Your task to perform on an android device: turn smart compose on in the gmail app Image 0: 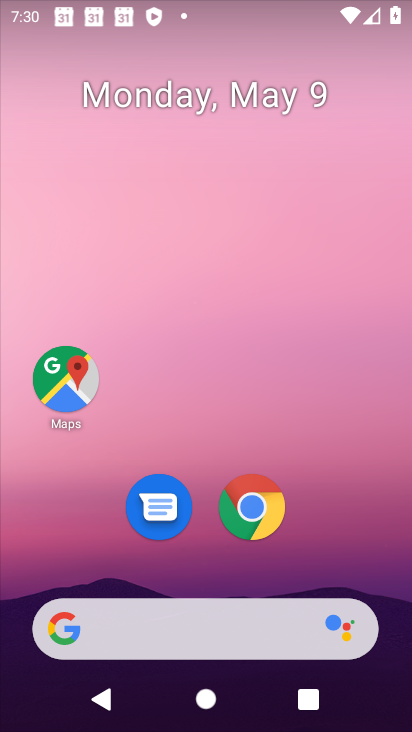
Step 0: drag from (294, 622) to (345, 154)
Your task to perform on an android device: turn smart compose on in the gmail app Image 1: 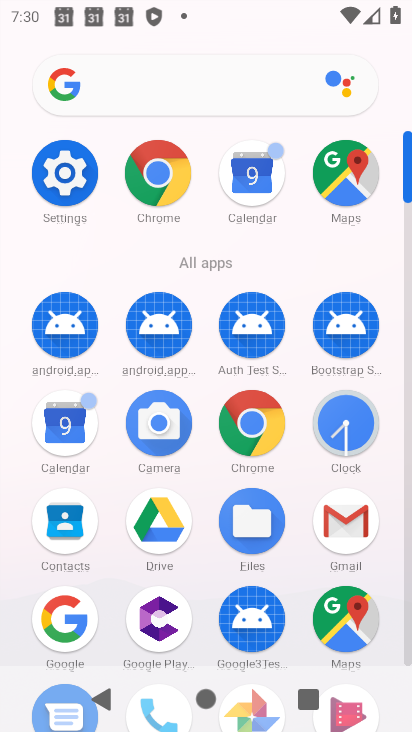
Step 1: click (350, 532)
Your task to perform on an android device: turn smart compose on in the gmail app Image 2: 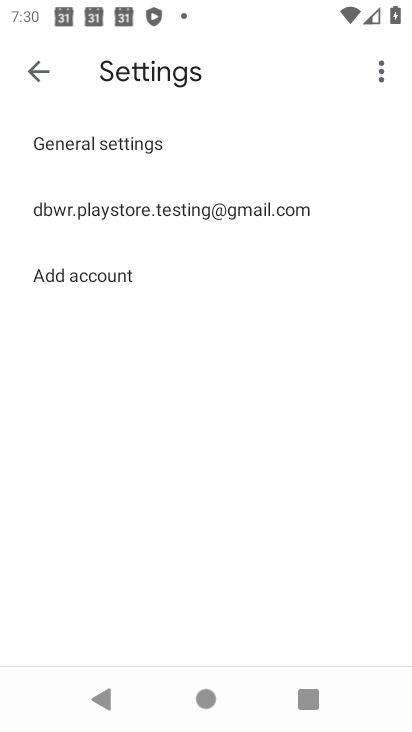
Step 2: click (167, 202)
Your task to perform on an android device: turn smart compose on in the gmail app Image 3: 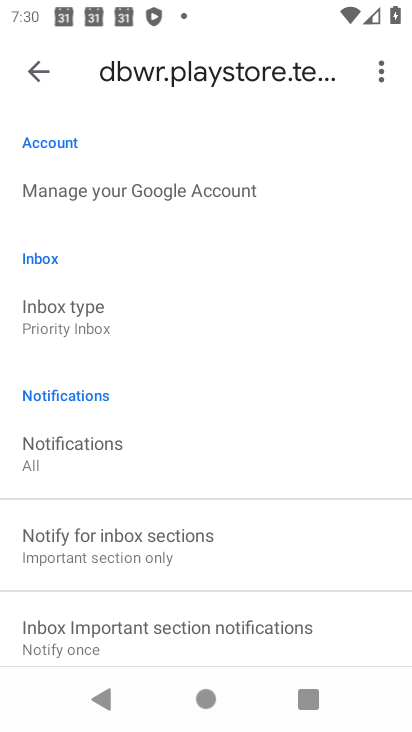
Step 3: drag from (217, 570) to (278, 136)
Your task to perform on an android device: turn smart compose on in the gmail app Image 4: 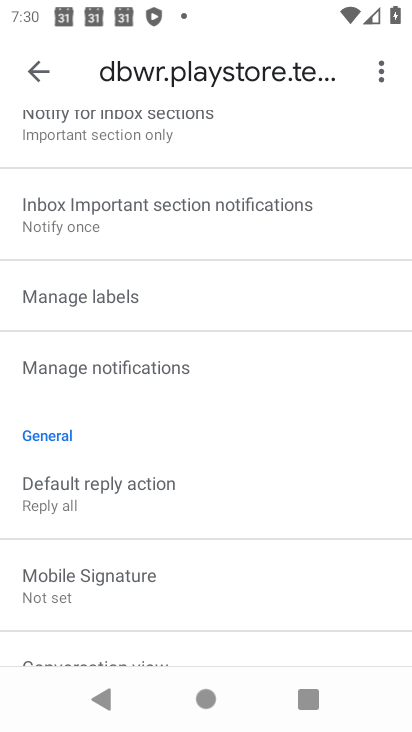
Step 4: drag from (246, 549) to (302, 122)
Your task to perform on an android device: turn smart compose on in the gmail app Image 5: 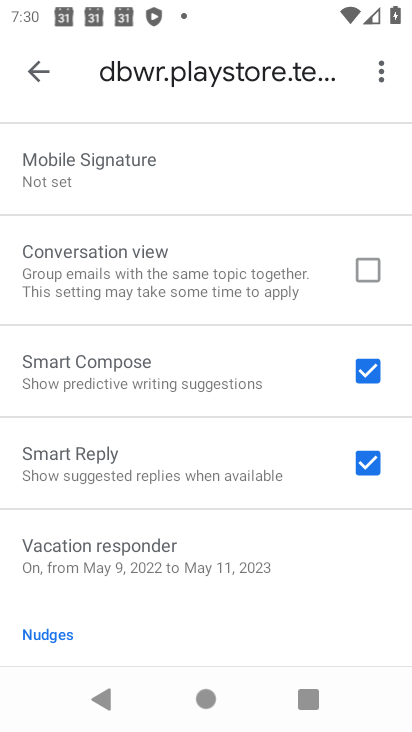
Step 5: click (360, 364)
Your task to perform on an android device: turn smart compose on in the gmail app Image 6: 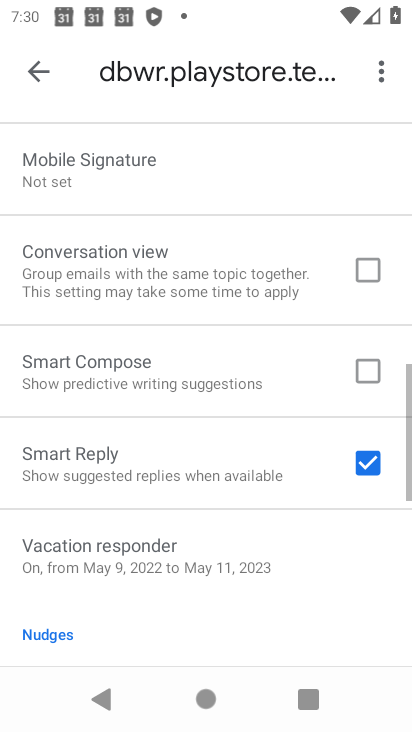
Step 6: click (360, 365)
Your task to perform on an android device: turn smart compose on in the gmail app Image 7: 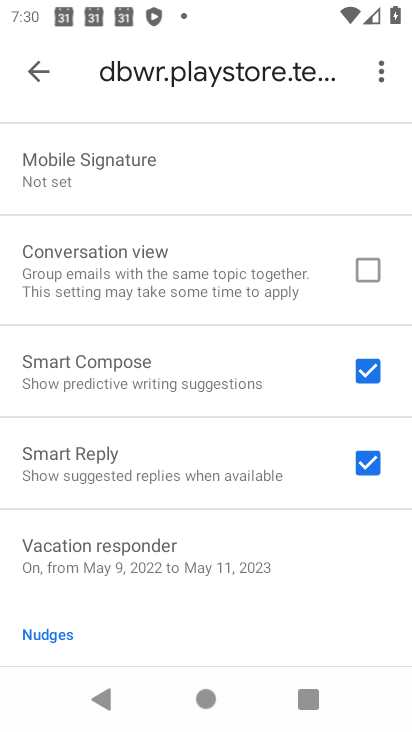
Step 7: task complete